Your task to perform on an android device: toggle javascript in the chrome app Image 0: 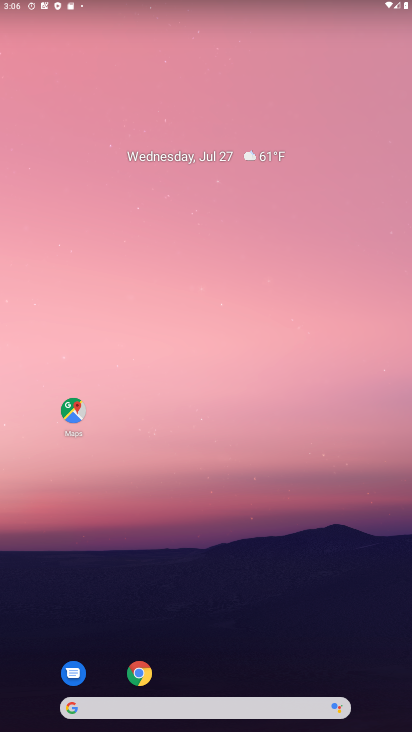
Step 0: click (125, 664)
Your task to perform on an android device: toggle javascript in the chrome app Image 1: 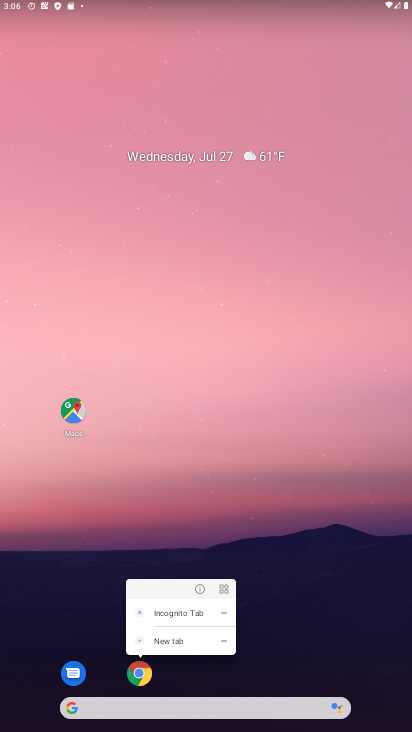
Step 1: click (134, 686)
Your task to perform on an android device: toggle javascript in the chrome app Image 2: 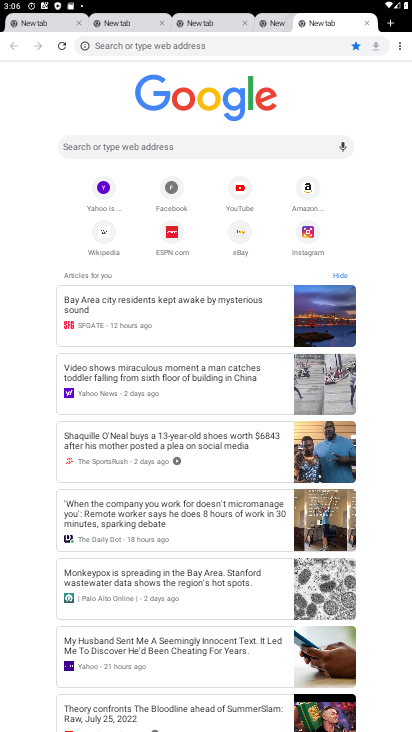
Step 2: click (403, 45)
Your task to perform on an android device: toggle javascript in the chrome app Image 3: 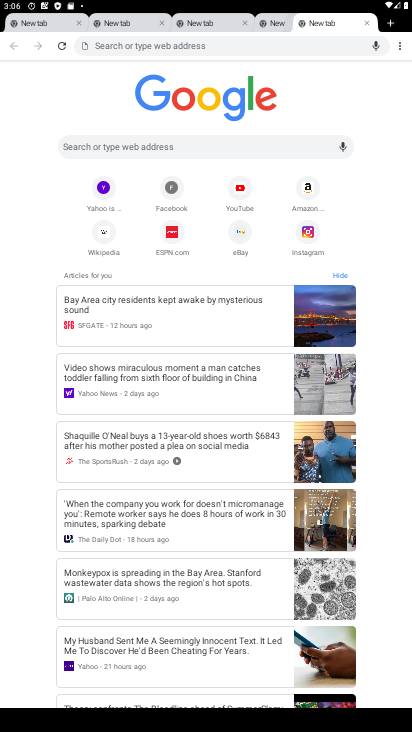
Step 3: click (396, 48)
Your task to perform on an android device: toggle javascript in the chrome app Image 4: 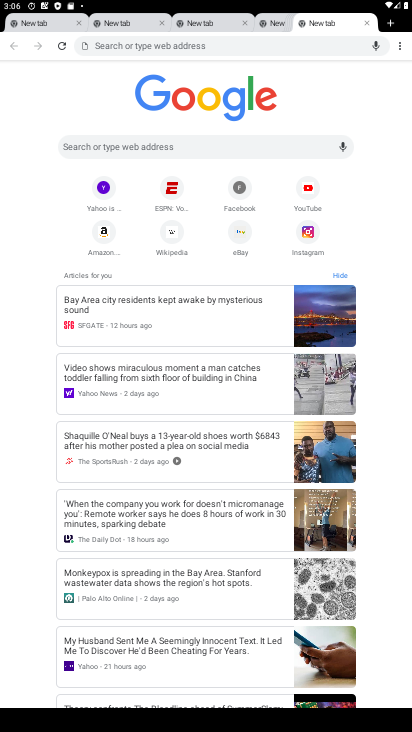
Step 4: click (395, 41)
Your task to perform on an android device: toggle javascript in the chrome app Image 5: 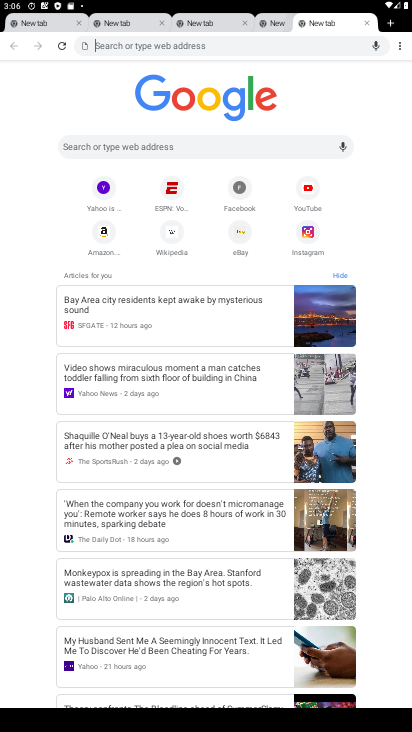
Step 5: task complete